Your task to perform on an android device: toggle data saver in the chrome app Image 0: 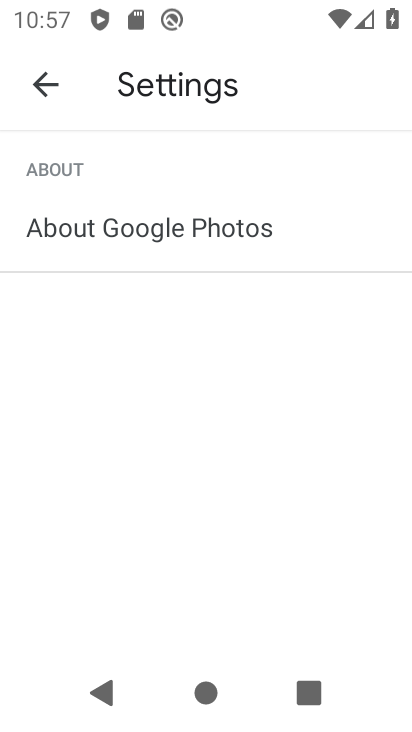
Step 0: press back button
Your task to perform on an android device: toggle data saver in the chrome app Image 1: 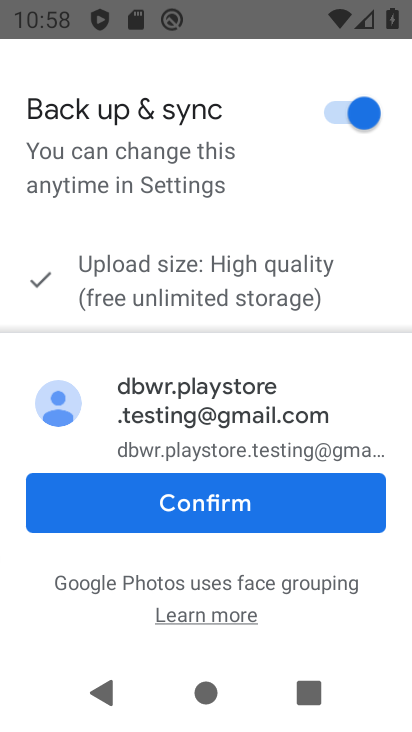
Step 1: press home button
Your task to perform on an android device: toggle data saver in the chrome app Image 2: 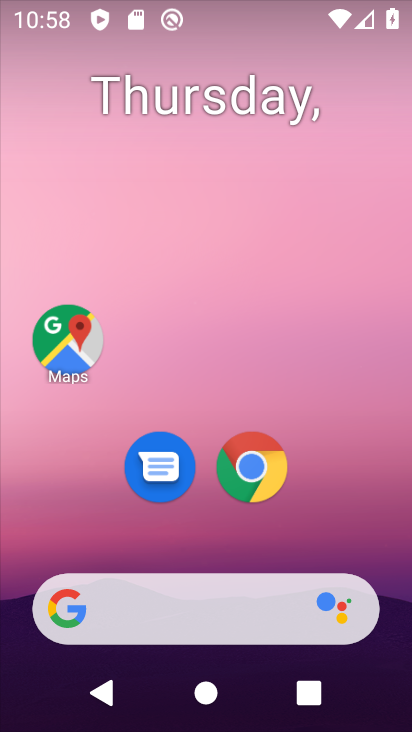
Step 2: drag from (227, 545) to (189, 181)
Your task to perform on an android device: toggle data saver in the chrome app Image 3: 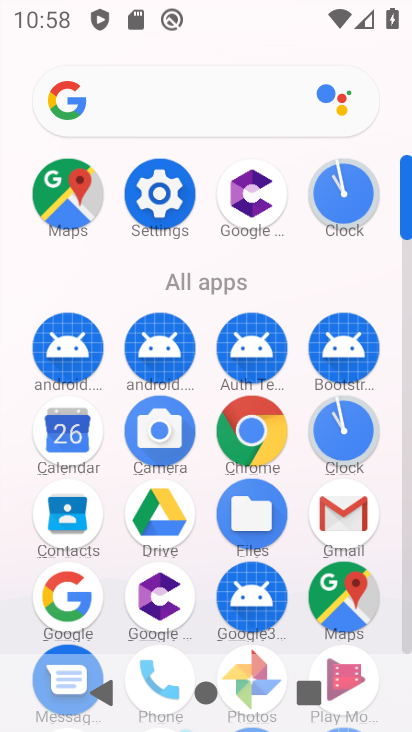
Step 3: click (243, 434)
Your task to perform on an android device: toggle data saver in the chrome app Image 4: 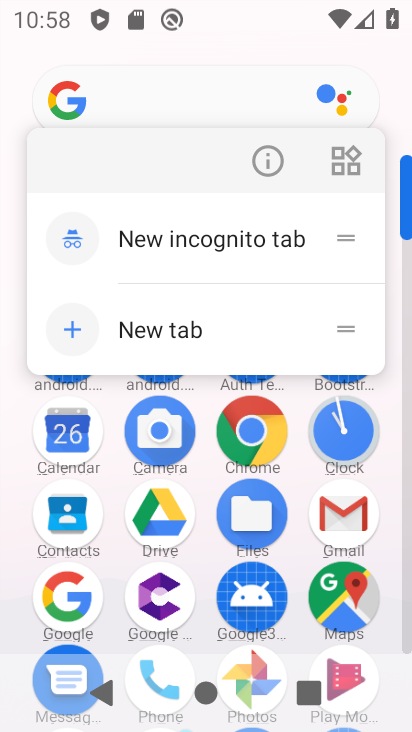
Step 4: click (250, 452)
Your task to perform on an android device: toggle data saver in the chrome app Image 5: 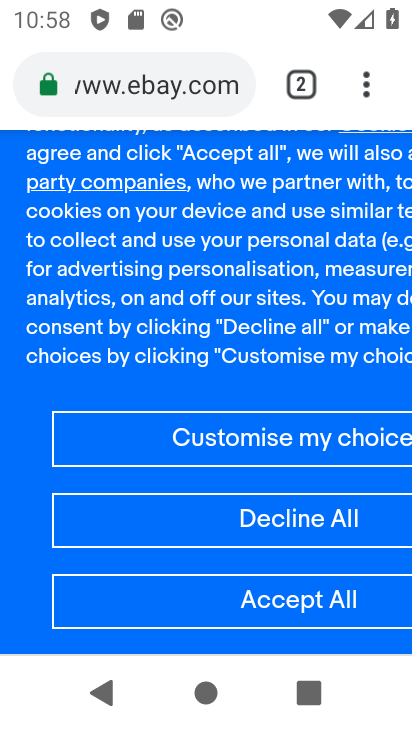
Step 5: click (361, 85)
Your task to perform on an android device: toggle data saver in the chrome app Image 6: 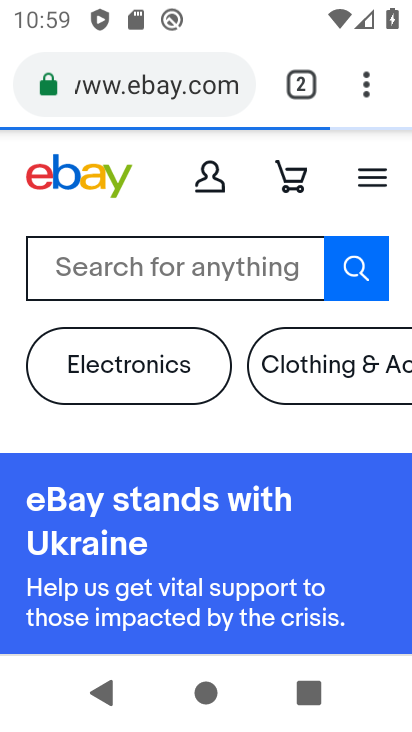
Step 6: click (366, 96)
Your task to perform on an android device: toggle data saver in the chrome app Image 7: 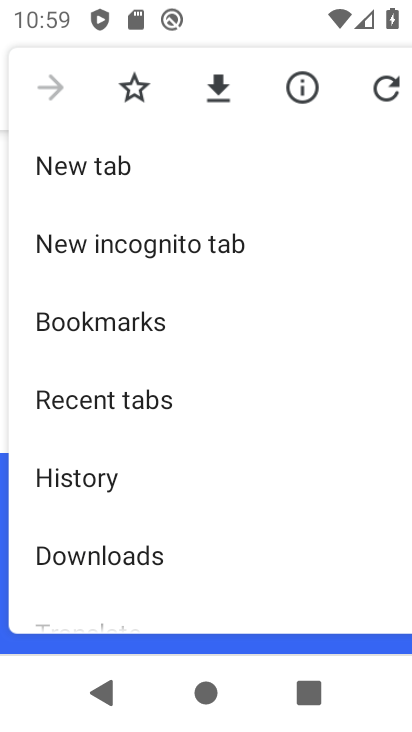
Step 7: drag from (217, 444) to (216, 109)
Your task to perform on an android device: toggle data saver in the chrome app Image 8: 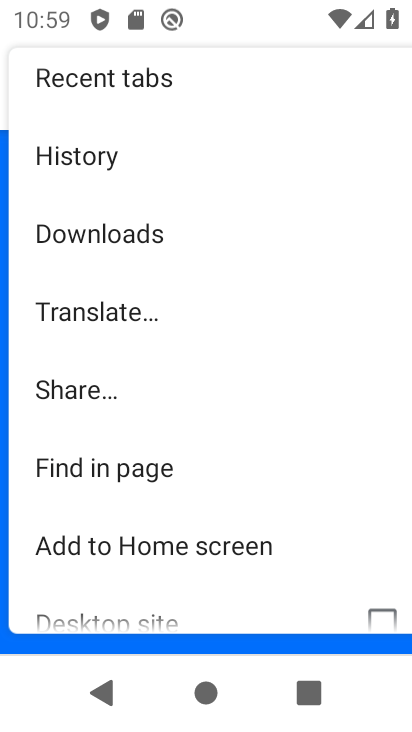
Step 8: drag from (190, 474) to (188, 127)
Your task to perform on an android device: toggle data saver in the chrome app Image 9: 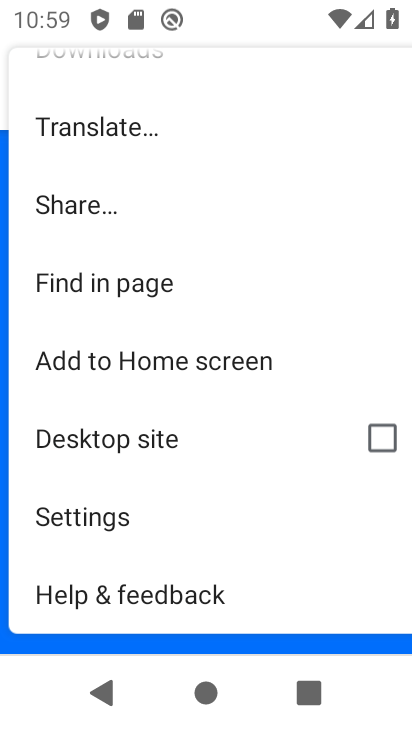
Step 9: click (142, 529)
Your task to perform on an android device: toggle data saver in the chrome app Image 10: 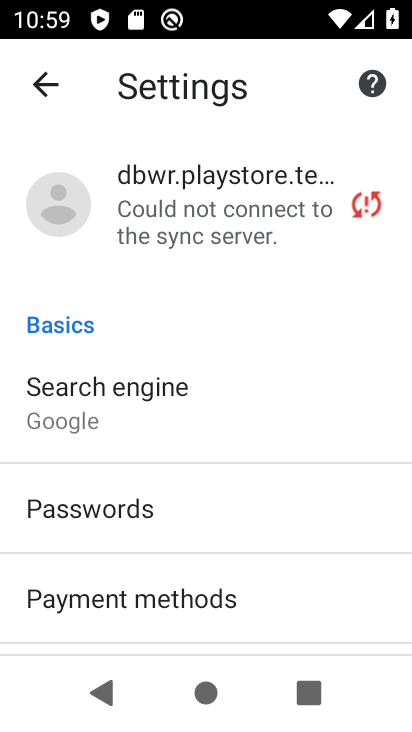
Step 10: drag from (136, 569) to (147, 129)
Your task to perform on an android device: toggle data saver in the chrome app Image 11: 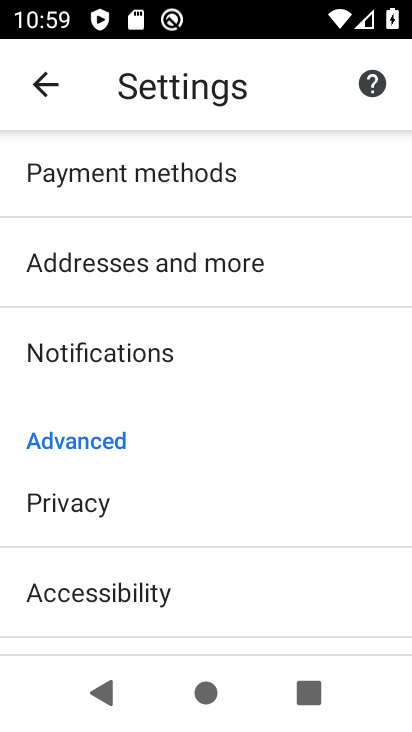
Step 11: drag from (167, 508) to (153, 187)
Your task to perform on an android device: toggle data saver in the chrome app Image 12: 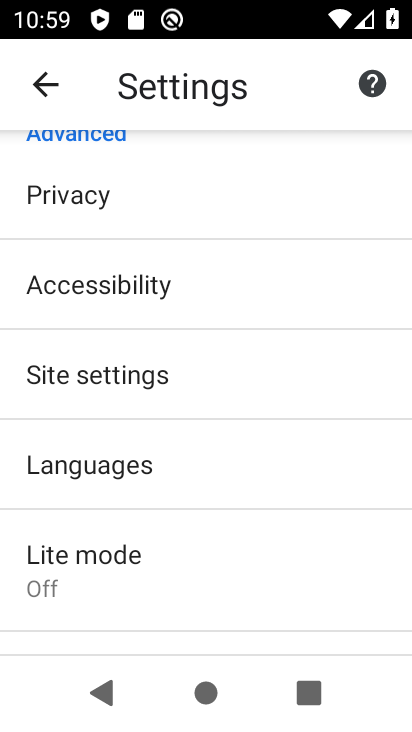
Step 12: click (152, 555)
Your task to perform on an android device: toggle data saver in the chrome app Image 13: 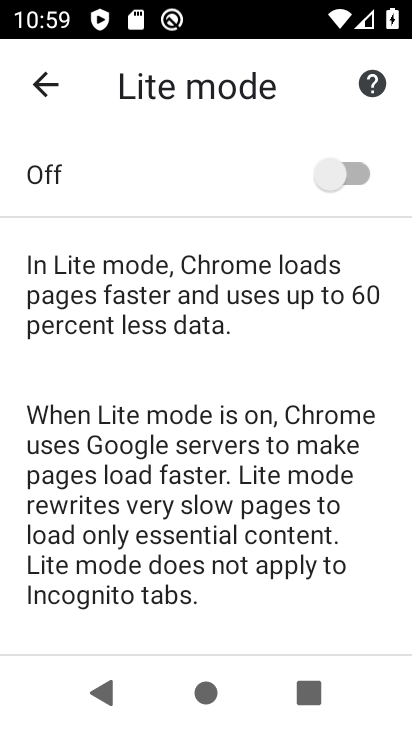
Step 13: click (348, 173)
Your task to perform on an android device: toggle data saver in the chrome app Image 14: 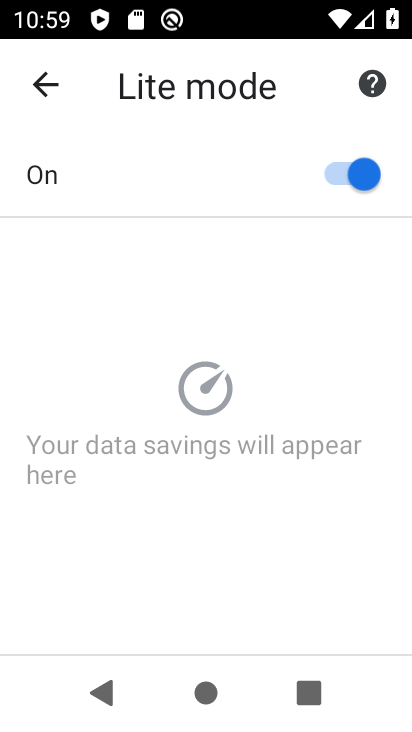
Step 14: task complete